Your task to perform on an android device: Open notification settings Image 0: 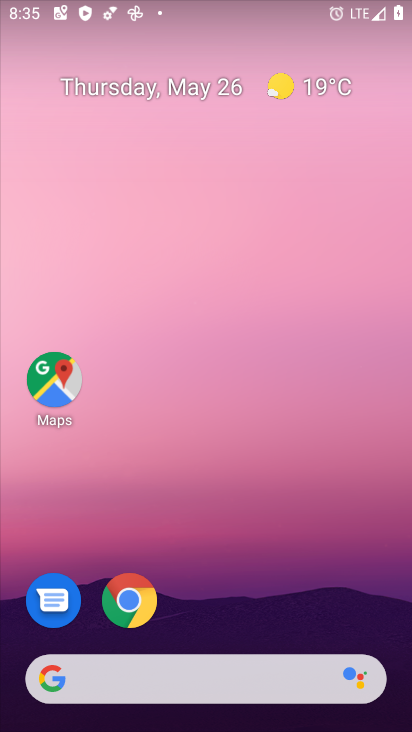
Step 0: press home button
Your task to perform on an android device: Open notification settings Image 1: 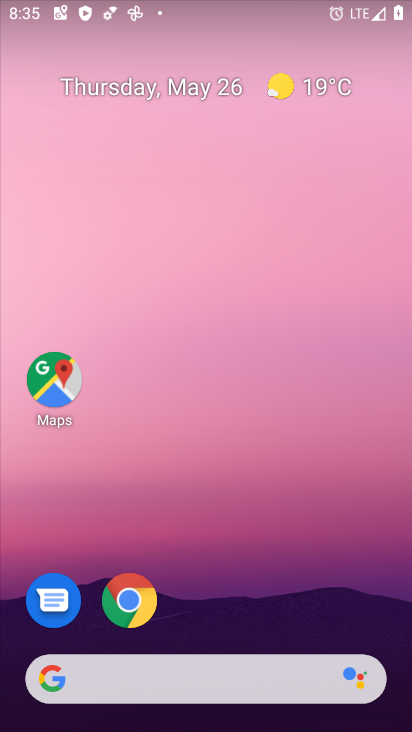
Step 1: drag from (338, 616) to (277, 225)
Your task to perform on an android device: Open notification settings Image 2: 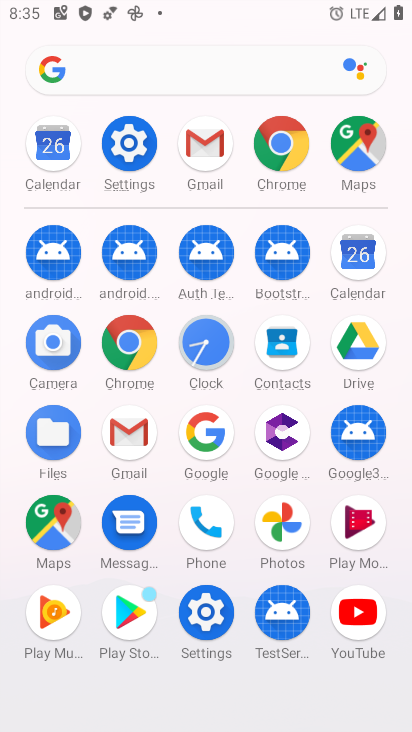
Step 2: click (115, 162)
Your task to perform on an android device: Open notification settings Image 3: 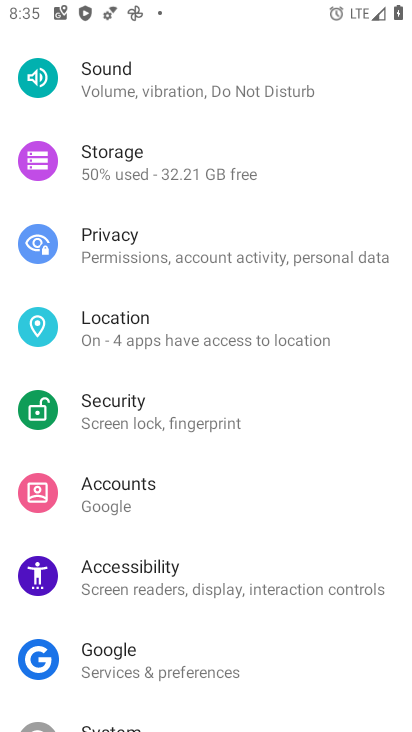
Step 3: drag from (212, 135) to (211, 464)
Your task to perform on an android device: Open notification settings Image 4: 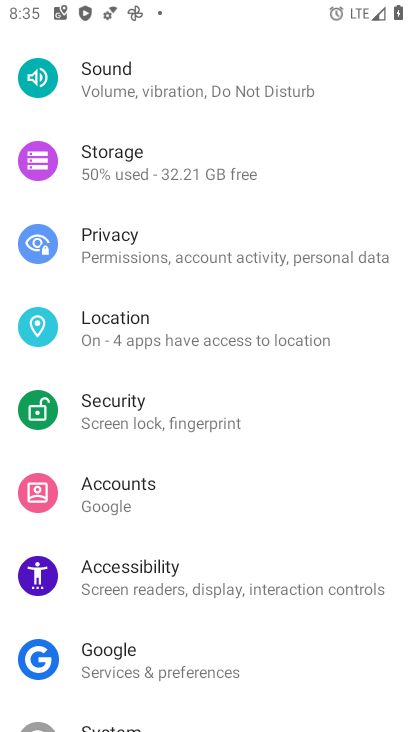
Step 4: drag from (279, 113) to (241, 530)
Your task to perform on an android device: Open notification settings Image 5: 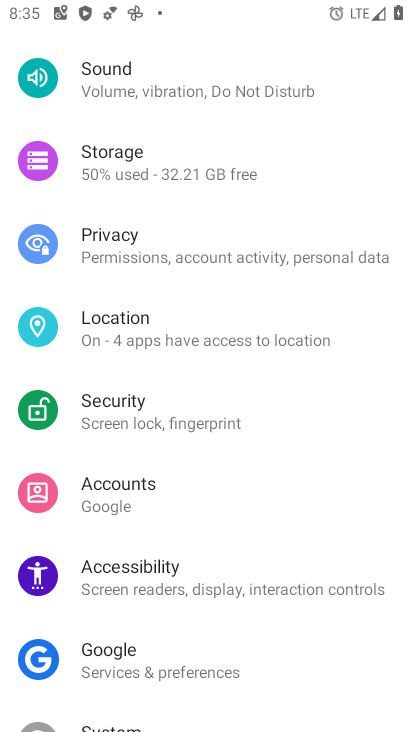
Step 5: drag from (362, 143) to (303, 689)
Your task to perform on an android device: Open notification settings Image 6: 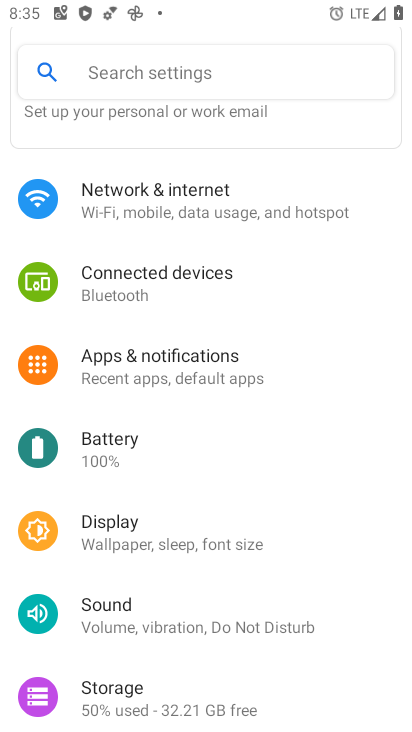
Step 6: drag from (292, 185) to (319, 650)
Your task to perform on an android device: Open notification settings Image 7: 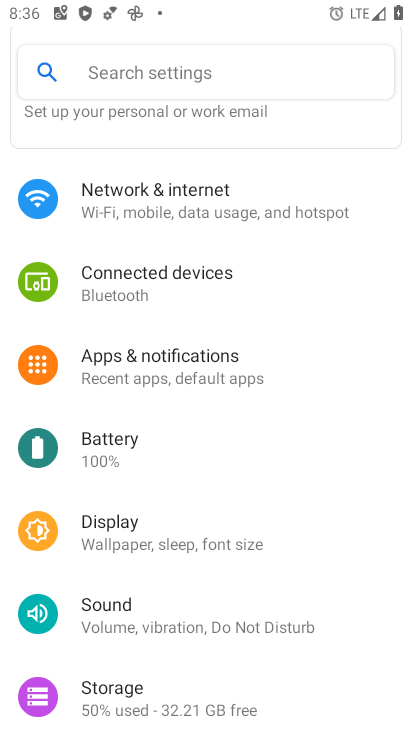
Step 7: click (164, 359)
Your task to perform on an android device: Open notification settings Image 8: 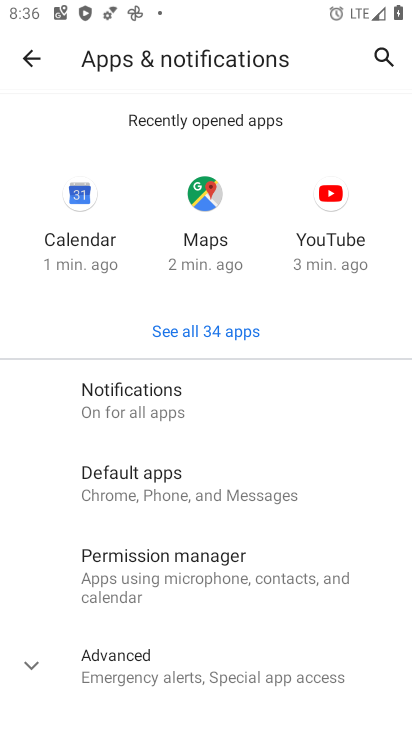
Step 8: click (132, 399)
Your task to perform on an android device: Open notification settings Image 9: 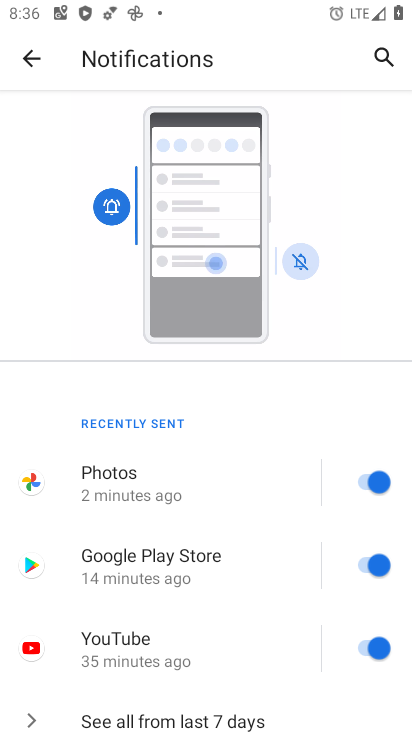
Step 9: task complete